Your task to perform on an android device: turn on wifi Image 0: 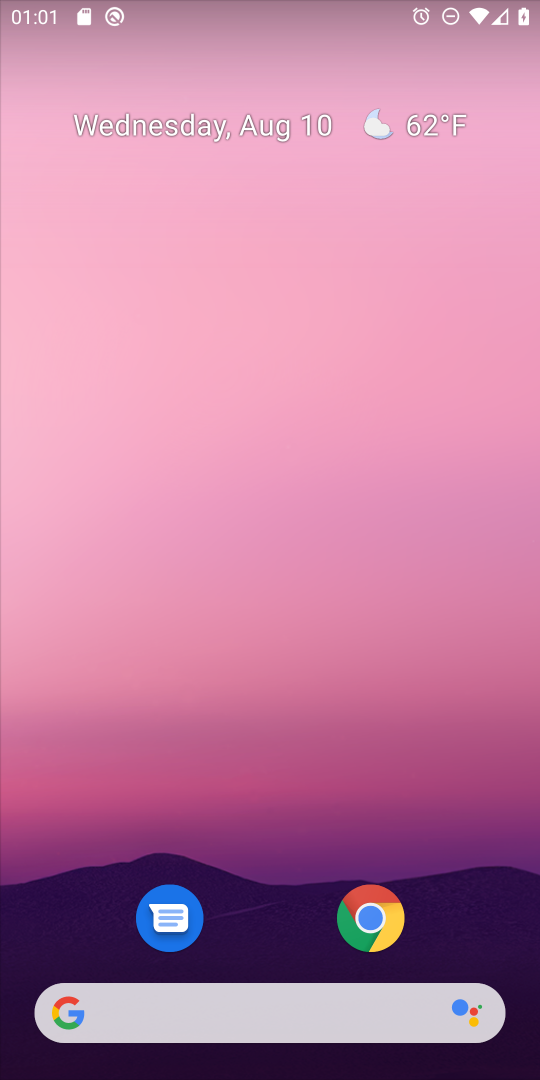
Step 0: drag from (264, 881) to (265, 244)
Your task to perform on an android device: turn on wifi Image 1: 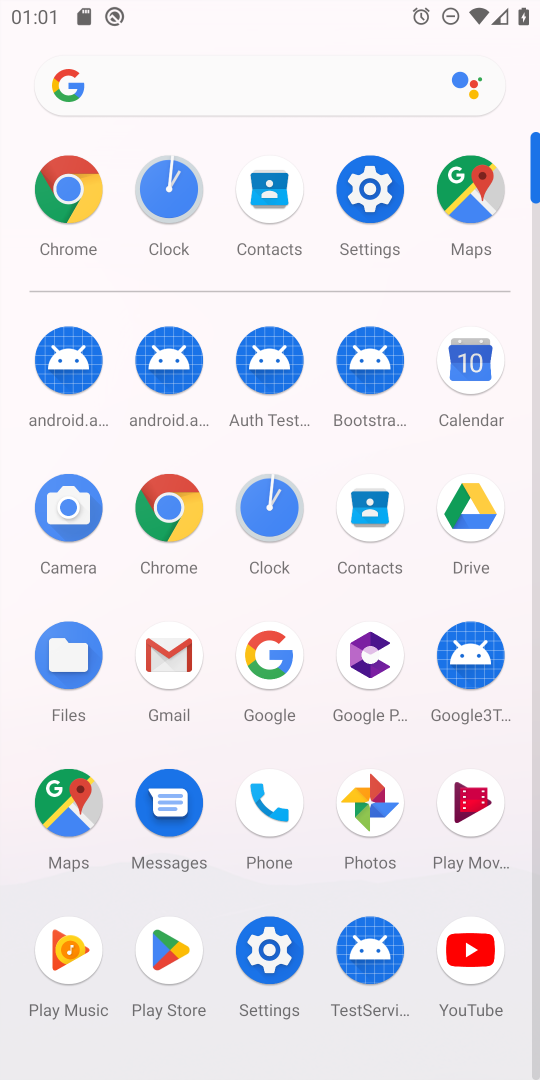
Step 1: click (269, 956)
Your task to perform on an android device: turn on wifi Image 2: 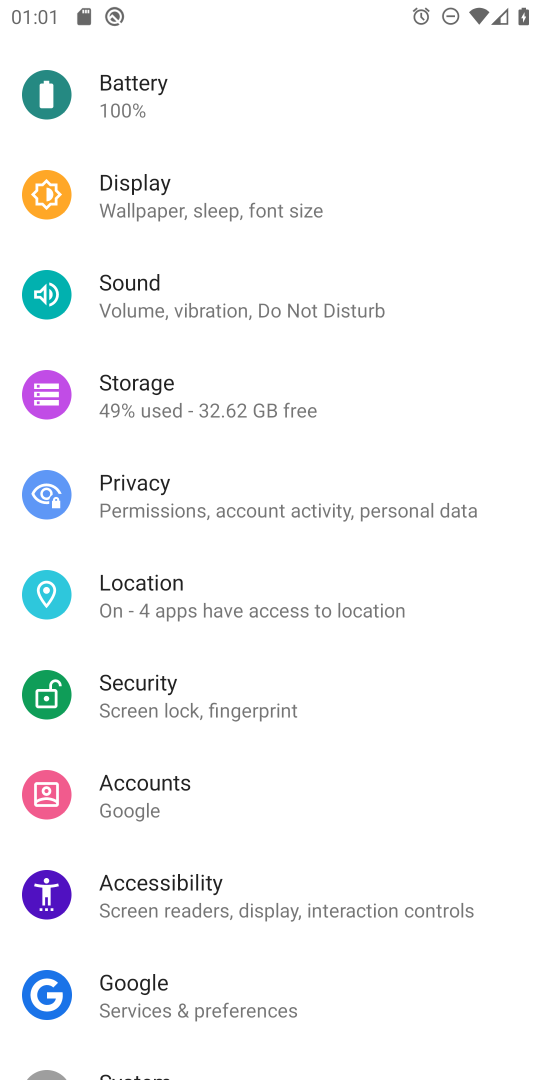
Step 2: drag from (232, 121) to (214, 790)
Your task to perform on an android device: turn on wifi Image 3: 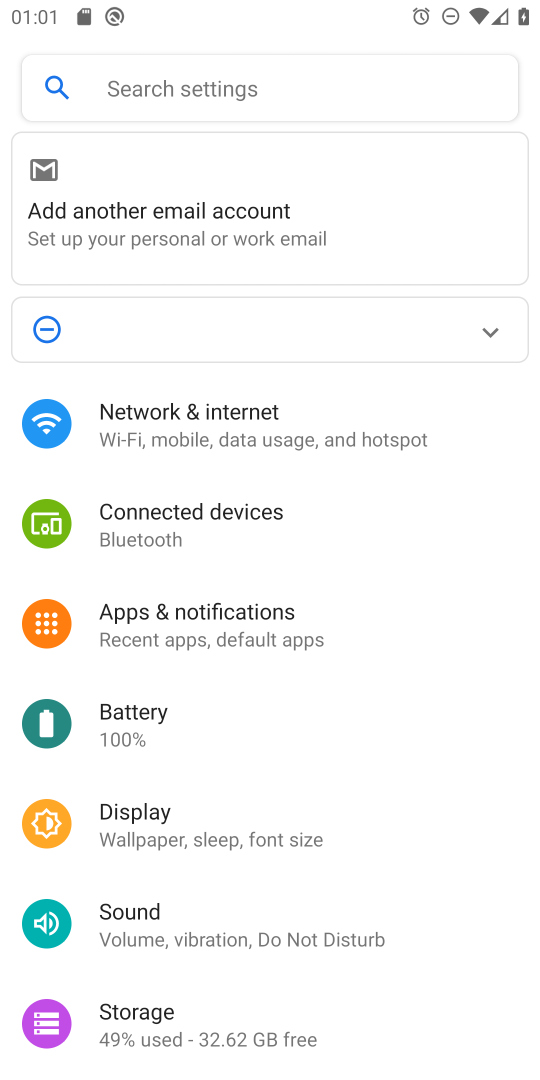
Step 3: click (197, 410)
Your task to perform on an android device: turn on wifi Image 4: 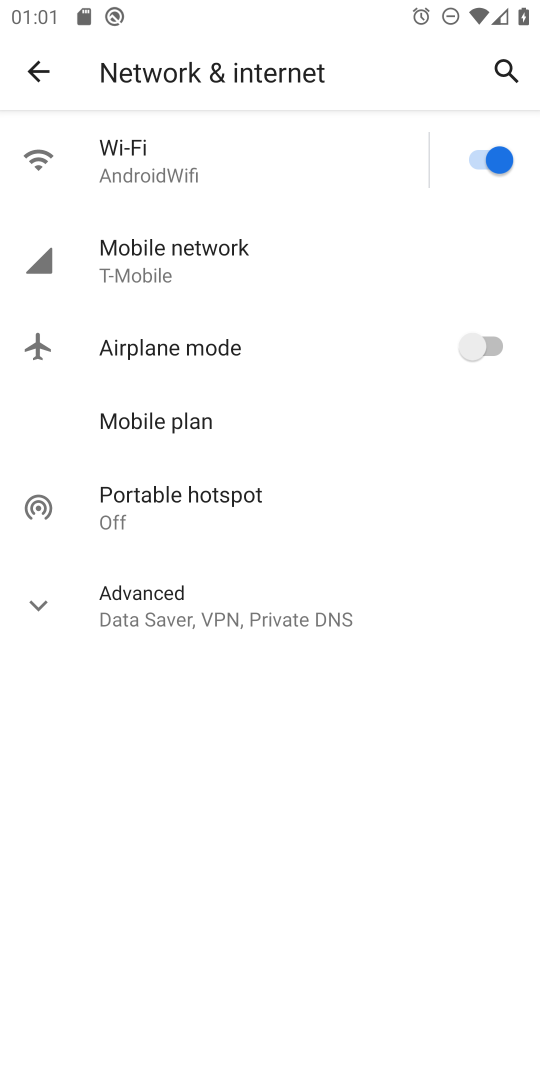
Step 4: task complete